Your task to perform on an android device: toggle airplane mode Image 0: 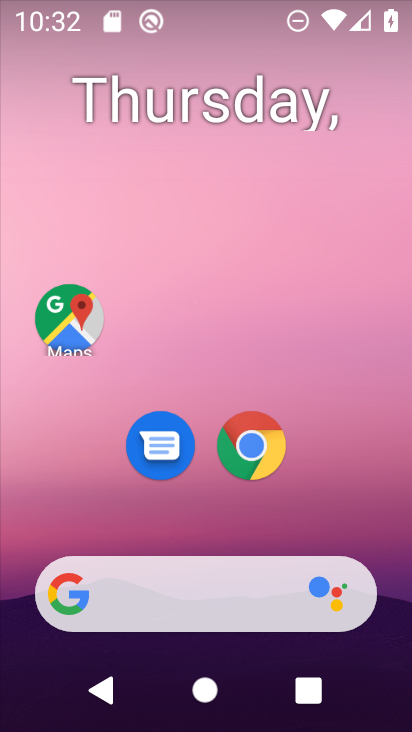
Step 0: drag from (200, 560) to (246, 6)
Your task to perform on an android device: toggle airplane mode Image 1: 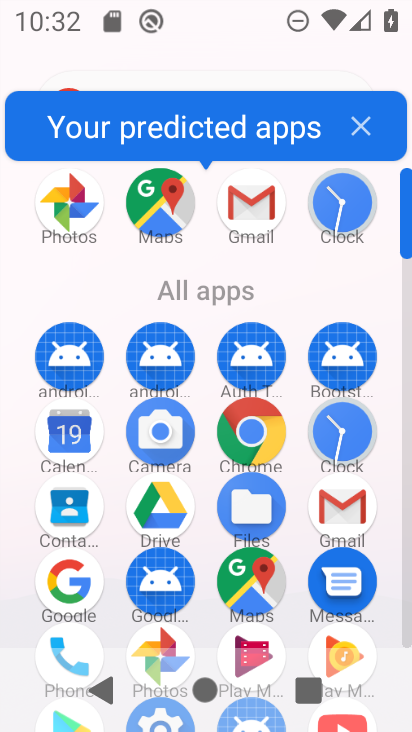
Step 1: drag from (203, 553) to (134, 54)
Your task to perform on an android device: toggle airplane mode Image 2: 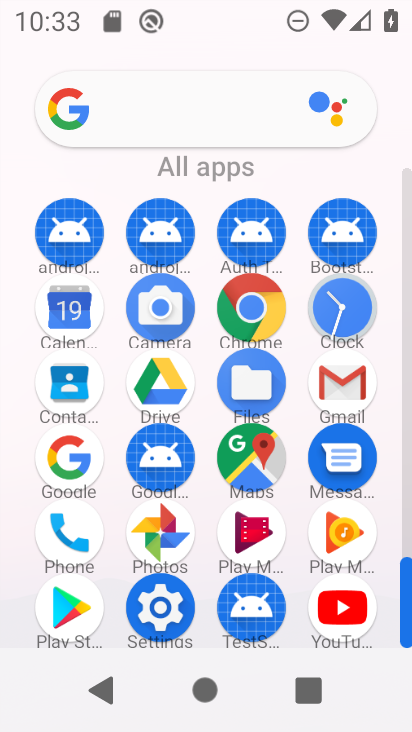
Step 2: click (173, 596)
Your task to perform on an android device: toggle airplane mode Image 3: 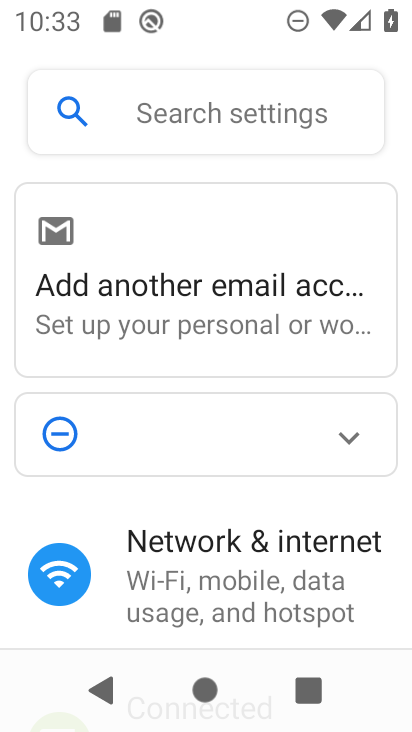
Step 3: click (244, 550)
Your task to perform on an android device: toggle airplane mode Image 4: 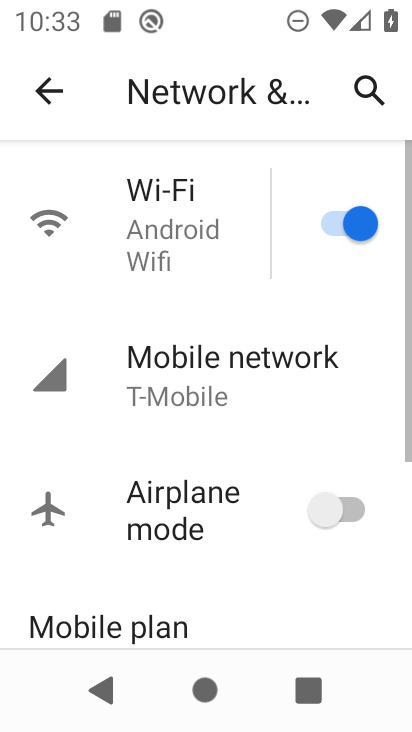
Step 4: click (325, 506)
Your task to perform on an android device: toggle airplane mode Image 5: 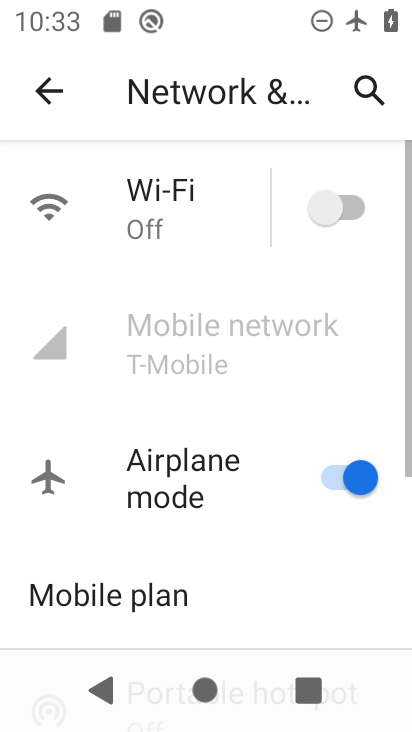
Step 5: task complete